Your task to perform on an android device: Go to wifi settings Image 0: 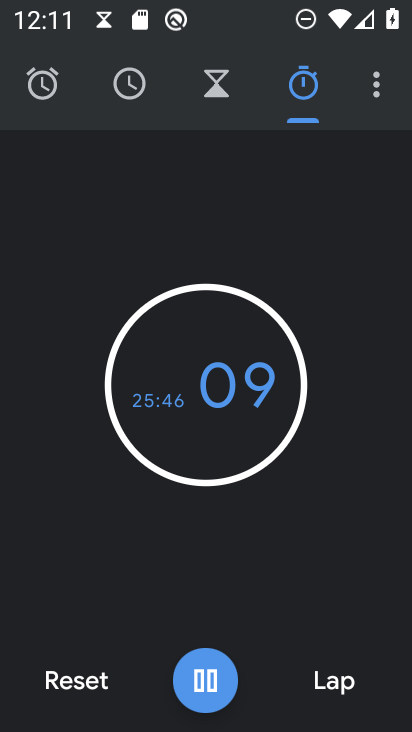
Step 0: drag from (217, 25) to (179, 429)
Your task to perform on an android device: Go to wifi settings Image 1: 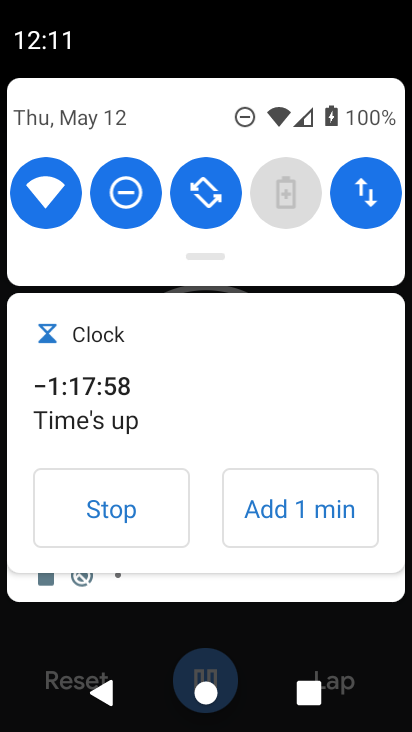
Step 1: click (51, 220)
Your task to perform on an android device: Go to wifi settings Image 2: 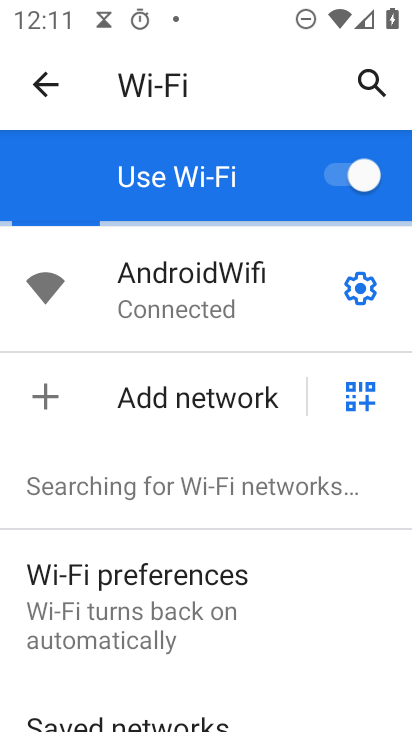
Step 2: task complete